Your task to perform on an android device: turn vacation reply on in the gmail app Image 0: 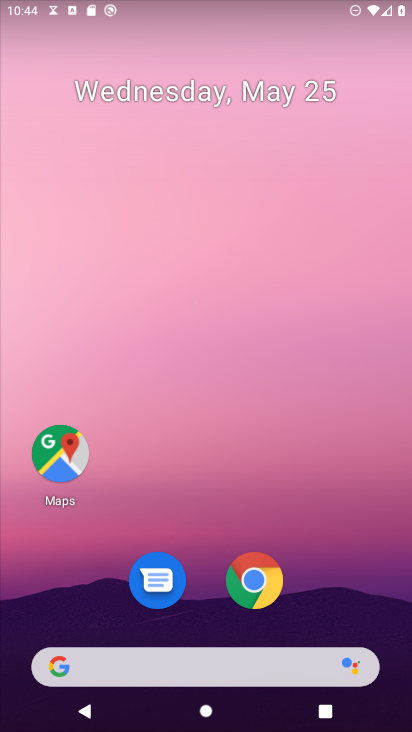
Step 0: press home button
Your task to perform on an android device: turn vacation reply on in the gmail app Image 1: 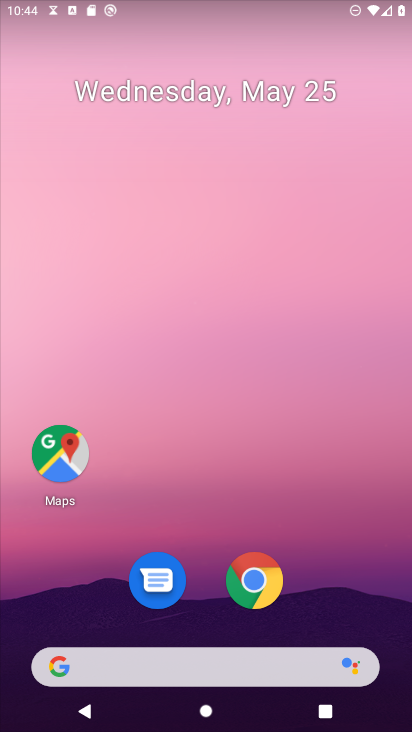
Step 1: task complete